Your task to perform on an android device: read, delete, or share a saved page in the chrome app Image 0: 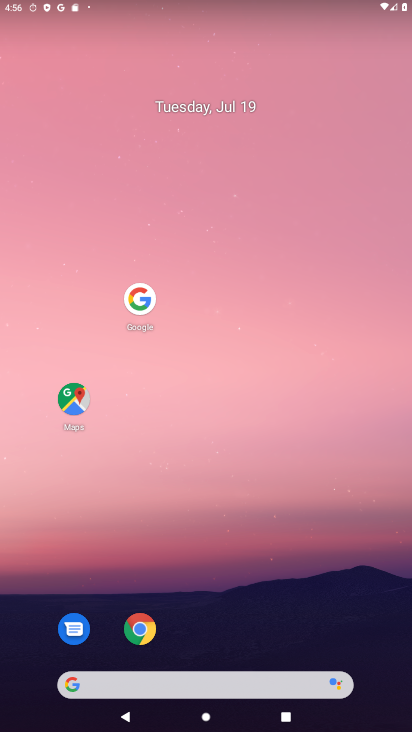
Step 0: click (149, 624)
Your task to perform on an android device: read, delete, or share a saved page in the chrome app Image 1: 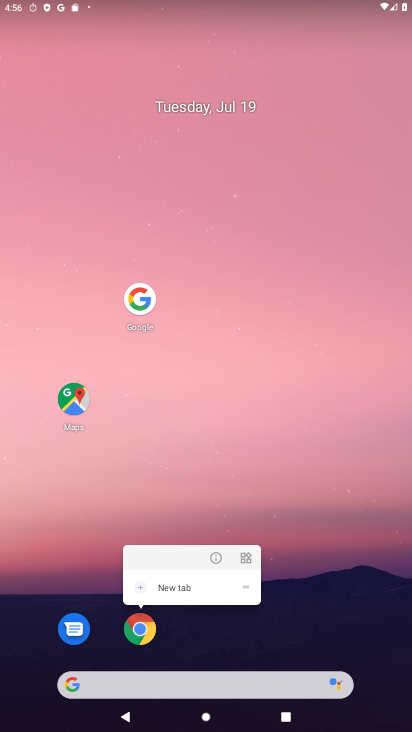
Step 1: click (150, 632)
Your task to perform on an android device: read, delete, or share a saved page in the chrome app Image 2: 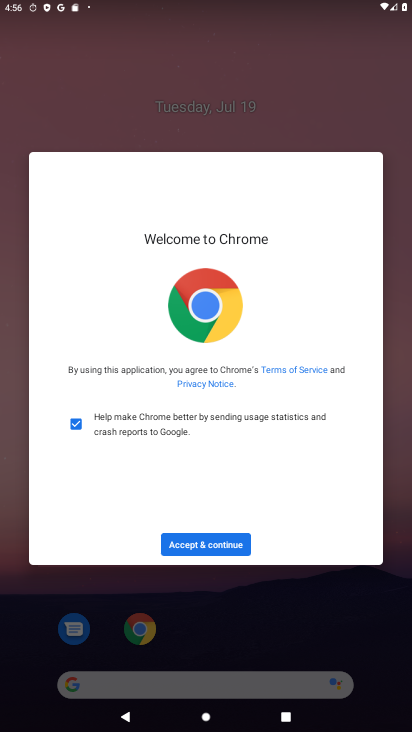
Step 2: click (191, 543)
Your task to perform on an android device: read, delete, or share a saved page in the chrome app Image 3: 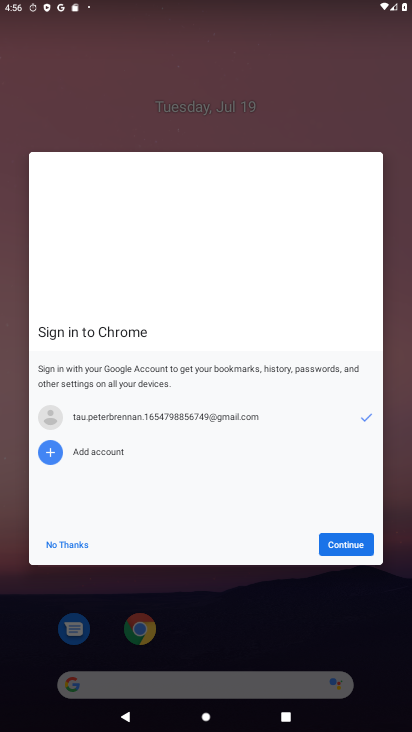
Step 3: click (332, 537)
Your task to perform on an android device: read, delete, or share a saved page in the chrome app Image 4: 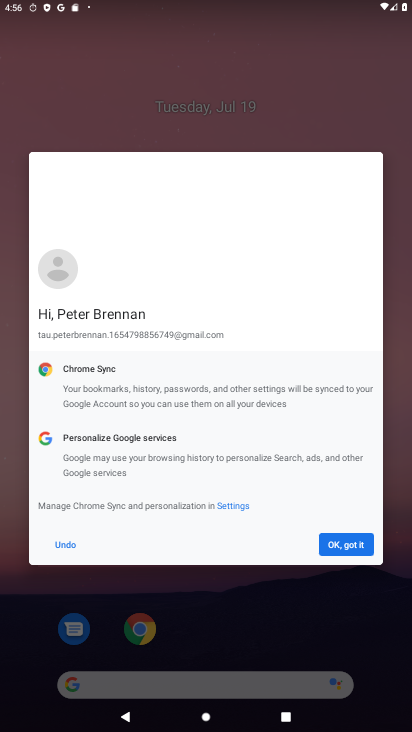
Step 4: click (330, 536)
Your task to perform on an android device: read, delete, or share a saved page in the chrome app Image 5: 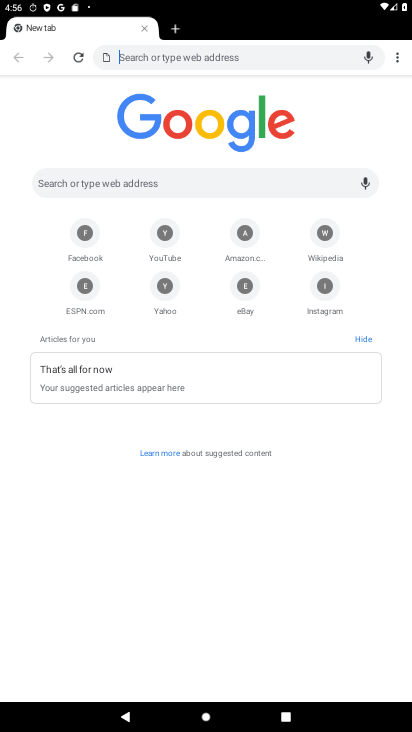
Step 5: click (405, 51)
Your task to perform on an android device: read, delete, or share a saved page in the chrome app Image 6: 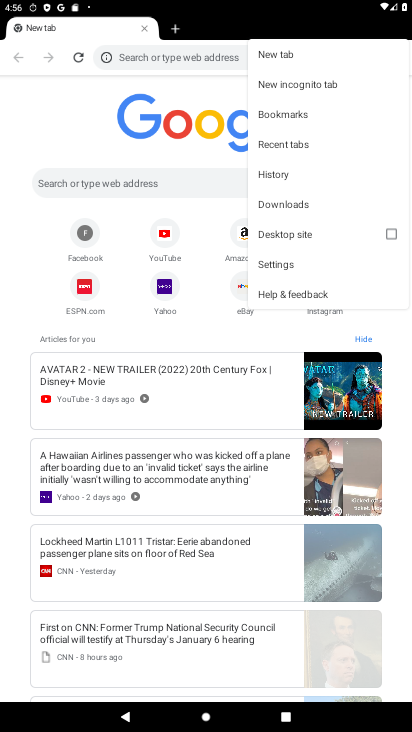
Step 6: click (290, 201)
Your task to perform on an android device: read, delete, or share a saved page in the chrome app Image 7: 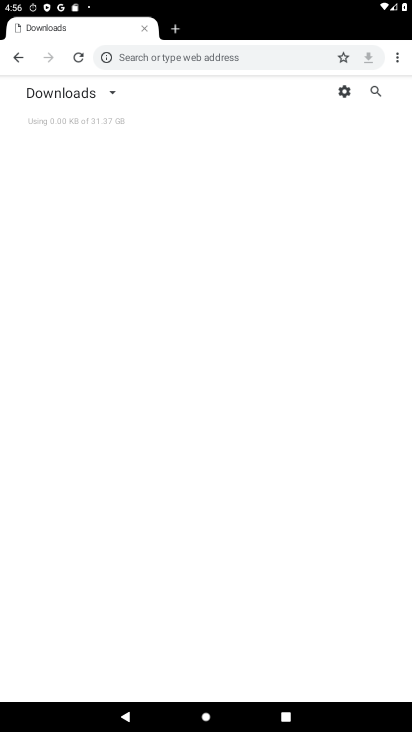
Step 7: task complete